Your task to perform on an android device: change the clock style Image 0: 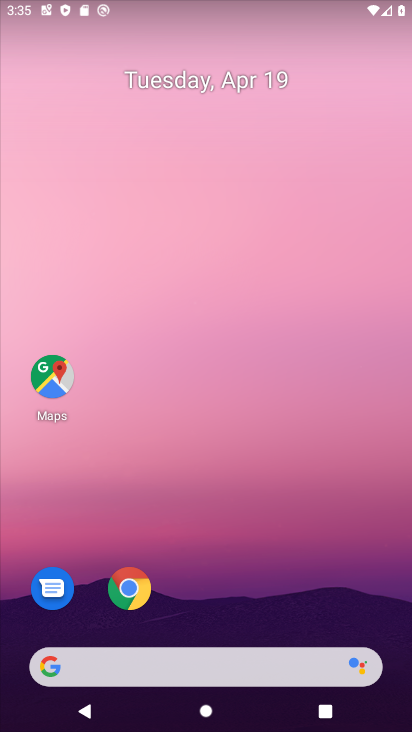
Step 0: drag from (217, 576) to (195, 76)
Your task to perform on an android device: change the clock style Image 1: 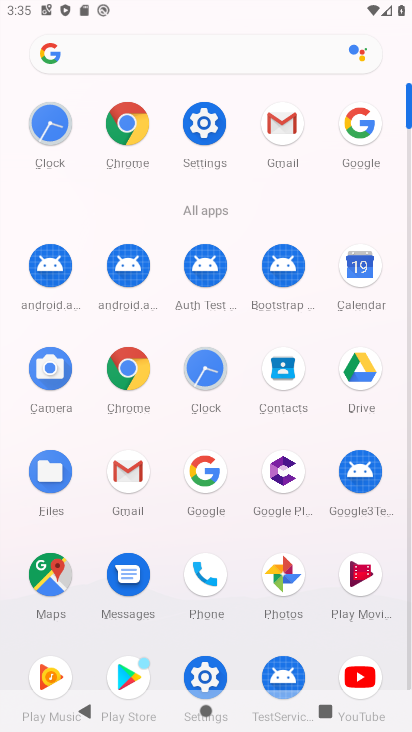
Step 1: click (50, 120)
Your task to perform on an android device: change the clock style Image 2: 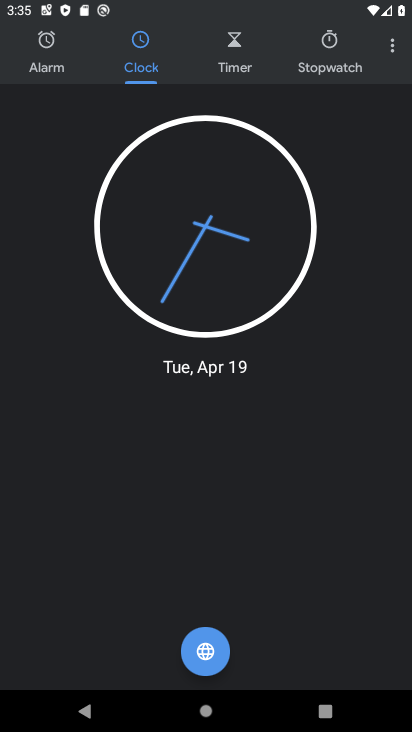
Step 2: click (391, 50)
Your task to perform on an android device: change the clock style Image 3: 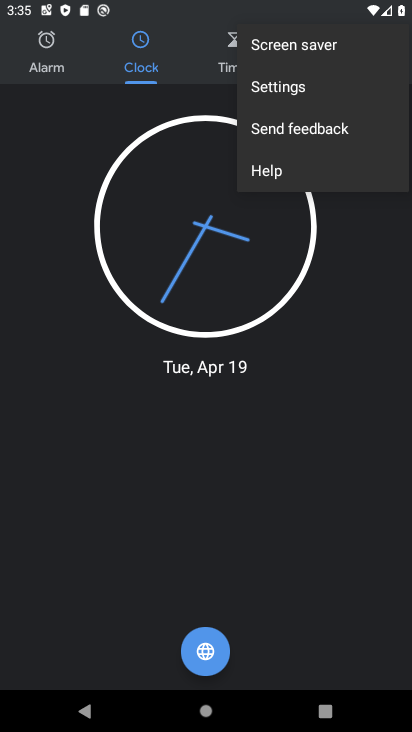
Step 3: click (277, 90)
Your task to perform on an android device: change the clock style Image 4: 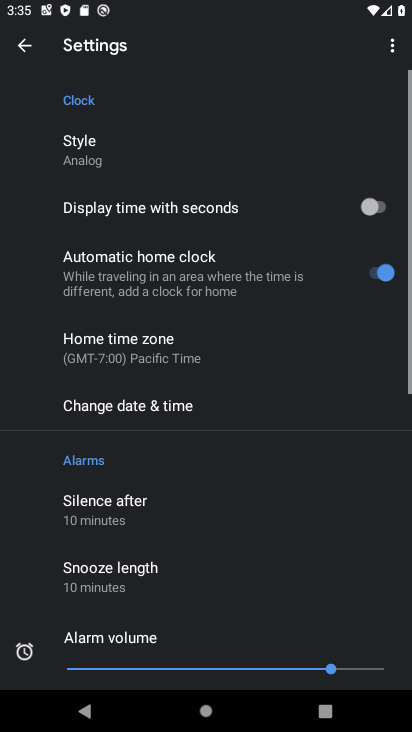
Step 4: click (131, 156)
Your task to perform on an android device: change the clock style Image 5: 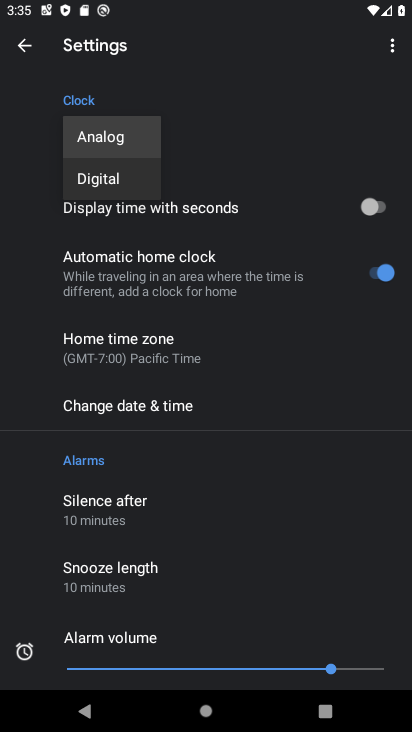
Step 5: click (137, 187)
Your task to perform on an android device: change the clock style Image 6: 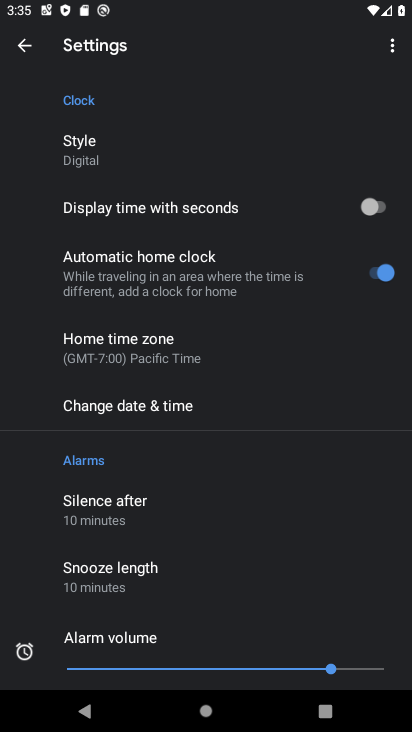
Step 6: task complete